Your task to perform on an android device: Open Amazon Image 0: 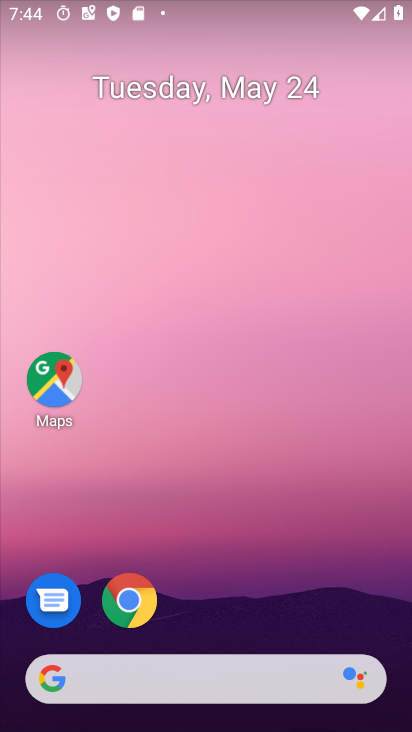
Step 0: click (137, 591)
Your task to perform on an android device: Open Amazon Image 1: 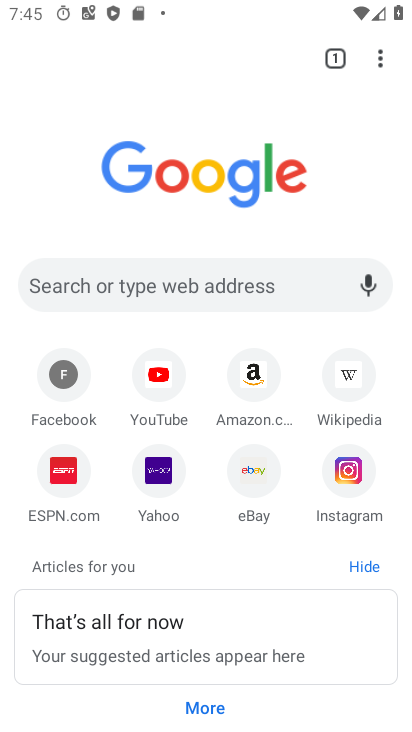
Step 1: click (260, 389)
Your task to perform on an android device: Open Amazon Image 2: 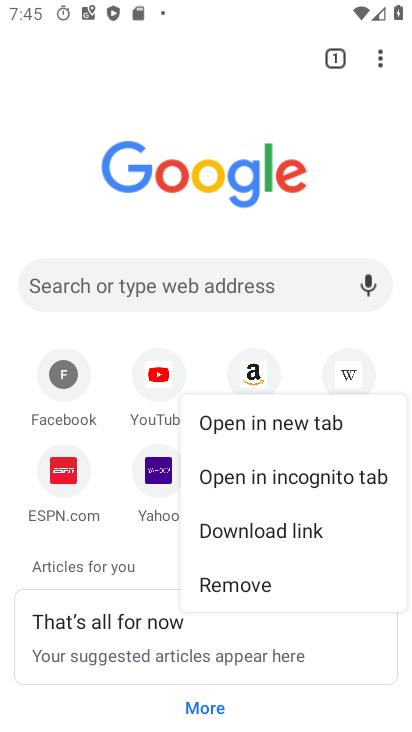
Step 2: click (241, 359)
Your task to perform on an android device: Open Amazon Image 3: 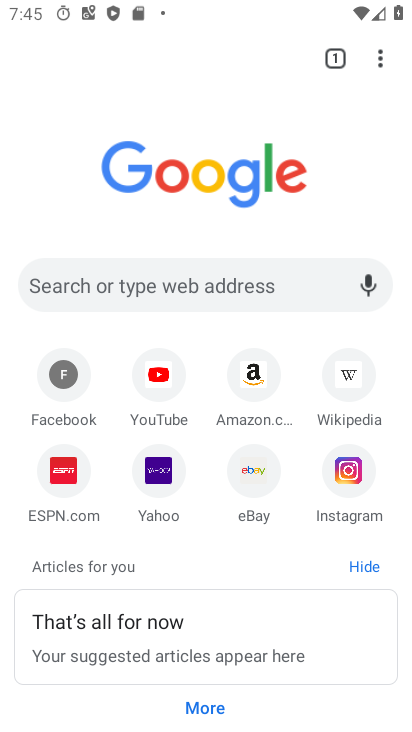
Step 3: click (248, 376)
Your task to perform on an android device: Open Amazon Image 4: 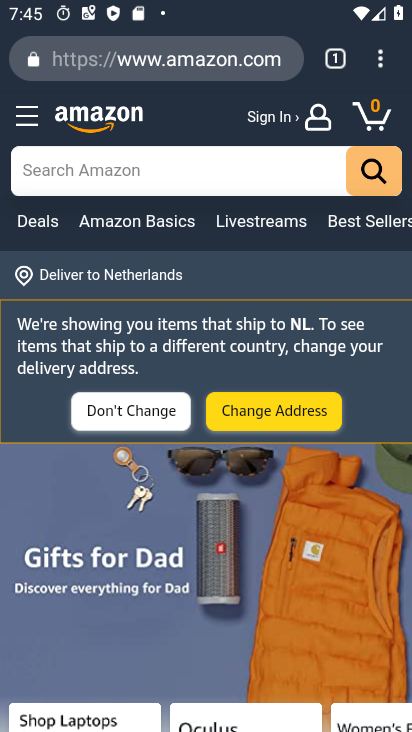
Step 4: task complete